Your task to perform on an android device: Open calendar and show me the fourth week of next month Image 0: 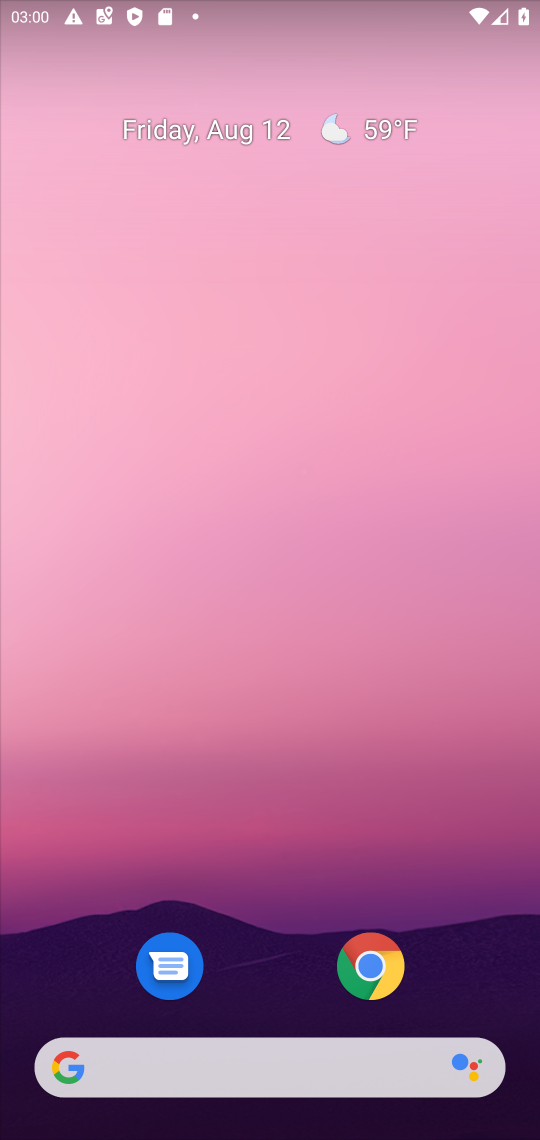
Step 0: drag from (244, 961) to (248, 126)
Your task to perform on an android device: Open calendar and show me the fourth week of next month Image 1: 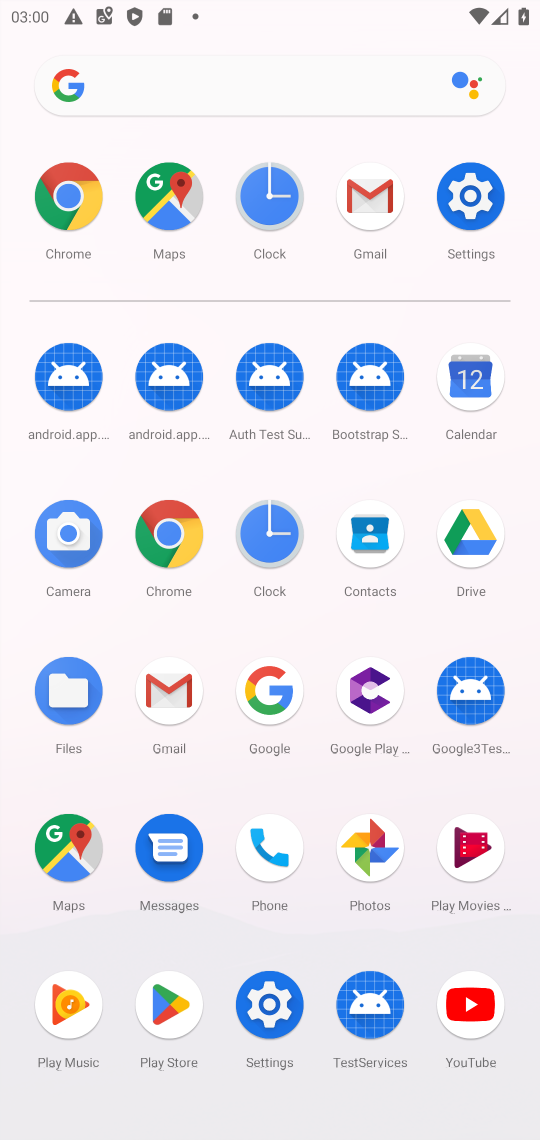
Step 1: click (473, 382)
Your task to perform on an android device: Open calendar and show me the fourth week of next month Image 2: 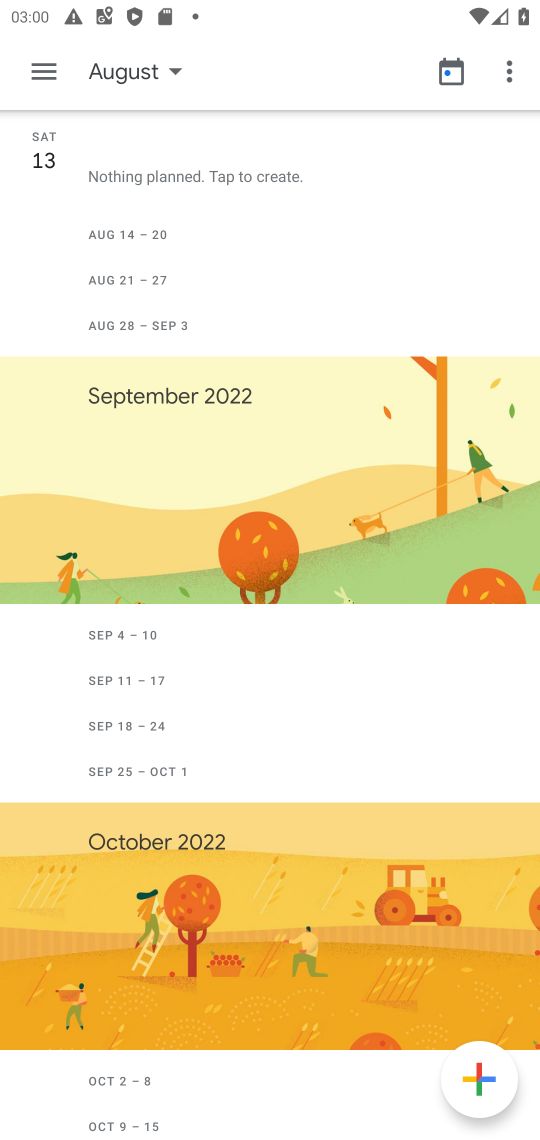
Step 2: click (111, 67)
Your task to perform on an android device: Open calendar and show me the fourth week of next month Image 3: 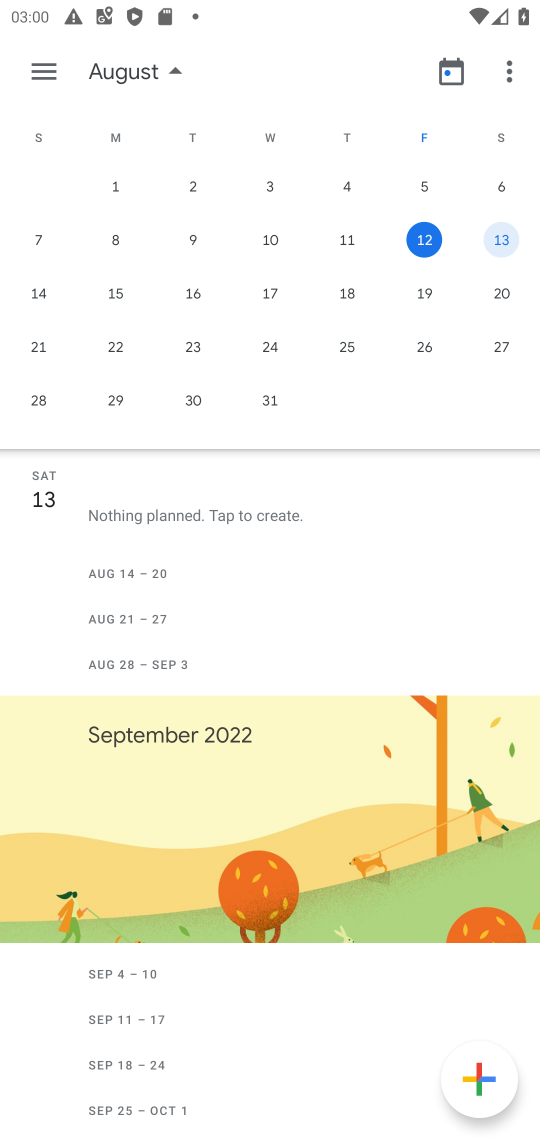
Step 3: drag from (496, 299) to (0, 324)
Your task to perform on an android device: Open calendar and show me the fourth week of next month Image 4: 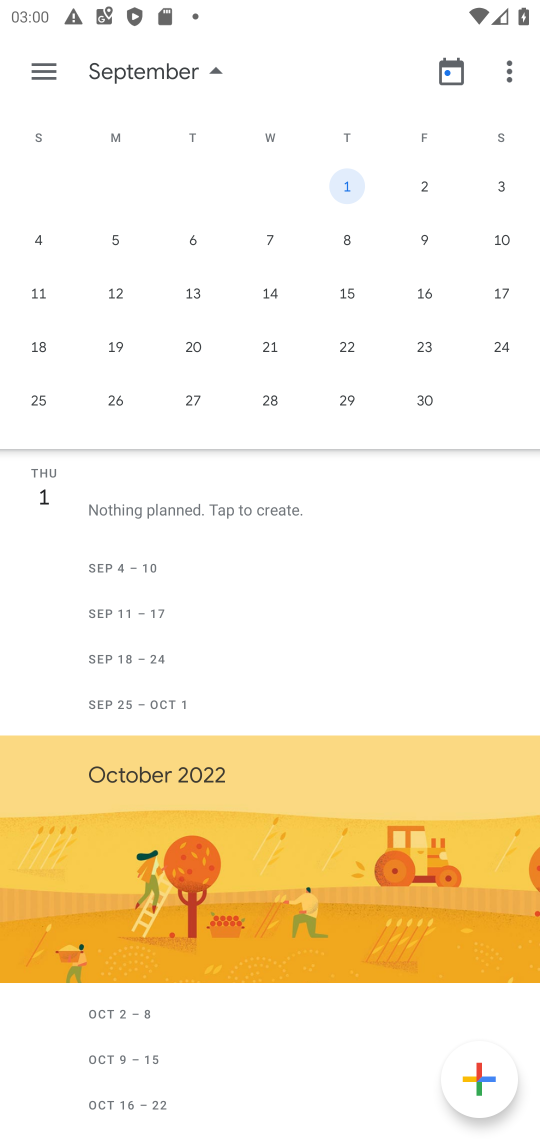
Step 4: click (108, 400)
Your task to perform on an android device: Open calendar and show me the fourth week of next month Image 5: 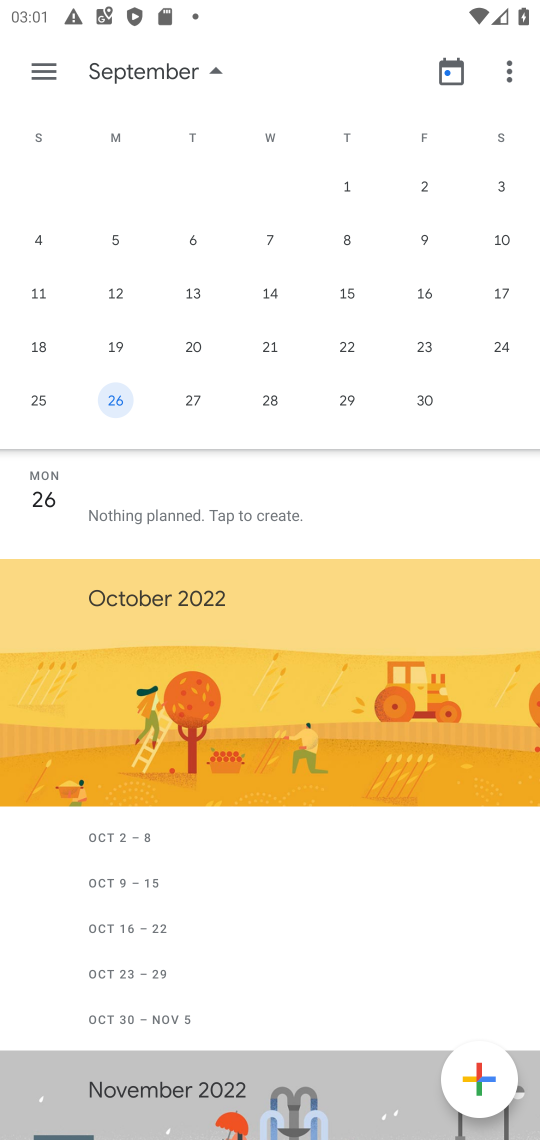
Step 5: click (36, 64)
Your task to perform on an android device: Open calendar and show me the fourth week of next month Image 6: 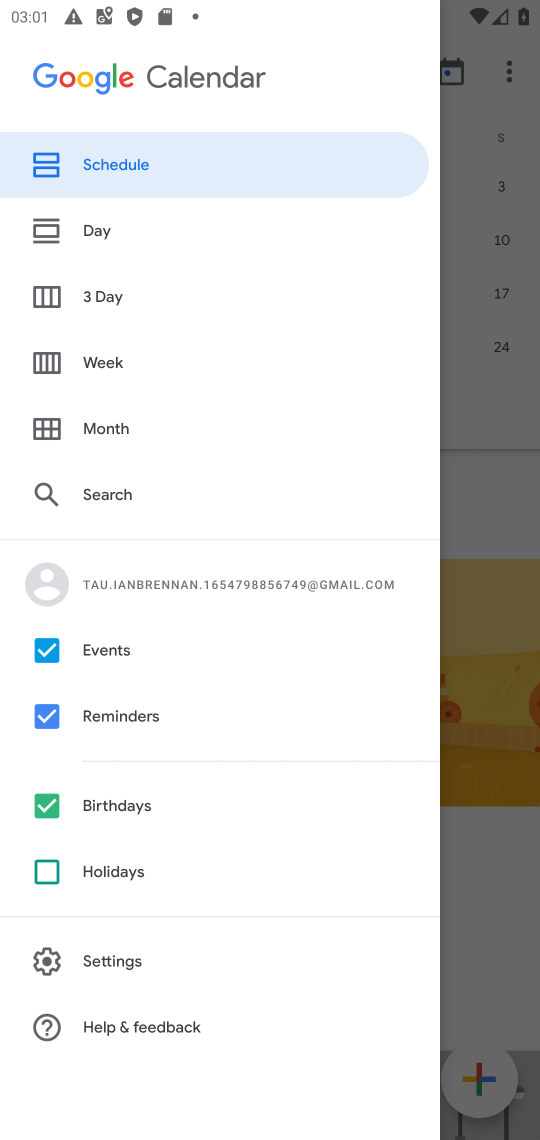
Step 6: click (113, 358)
Your task to perform on an android device: Open calendar and show me the fourth week of next month Image 7: 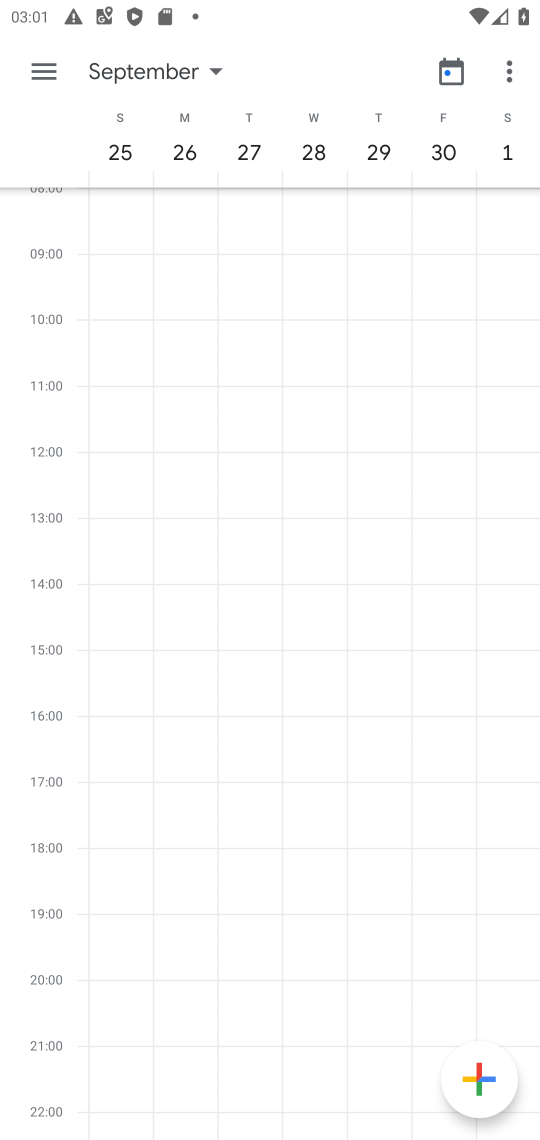
Step 7: task complete